Your task to perform on an android device: check google app version Image 0: 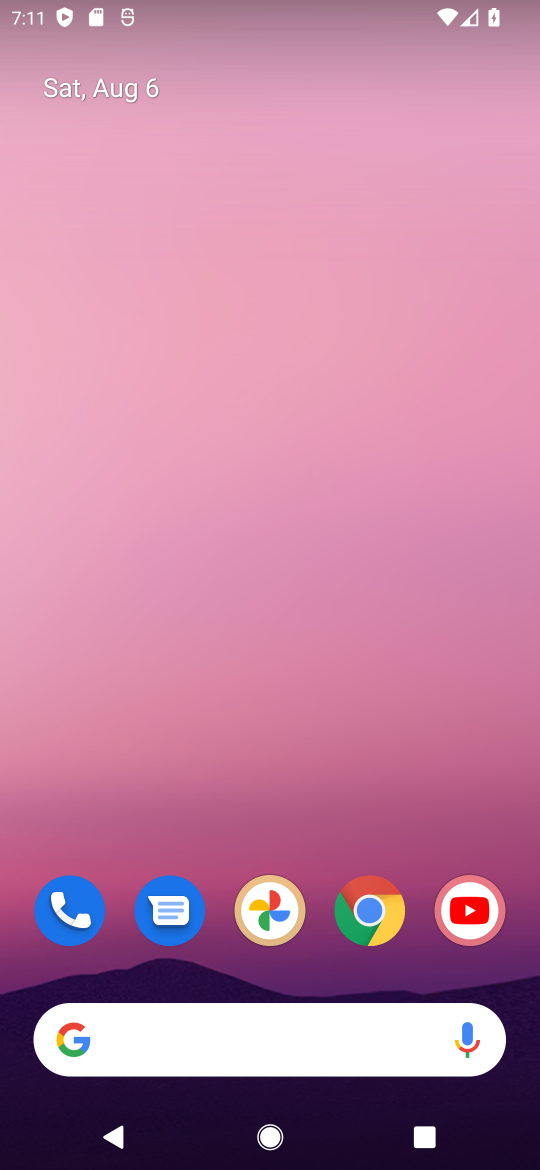
Step 0: drag from (488, 894) to (345, 169)
Your task to perform on an android device: check google app version Image 1: 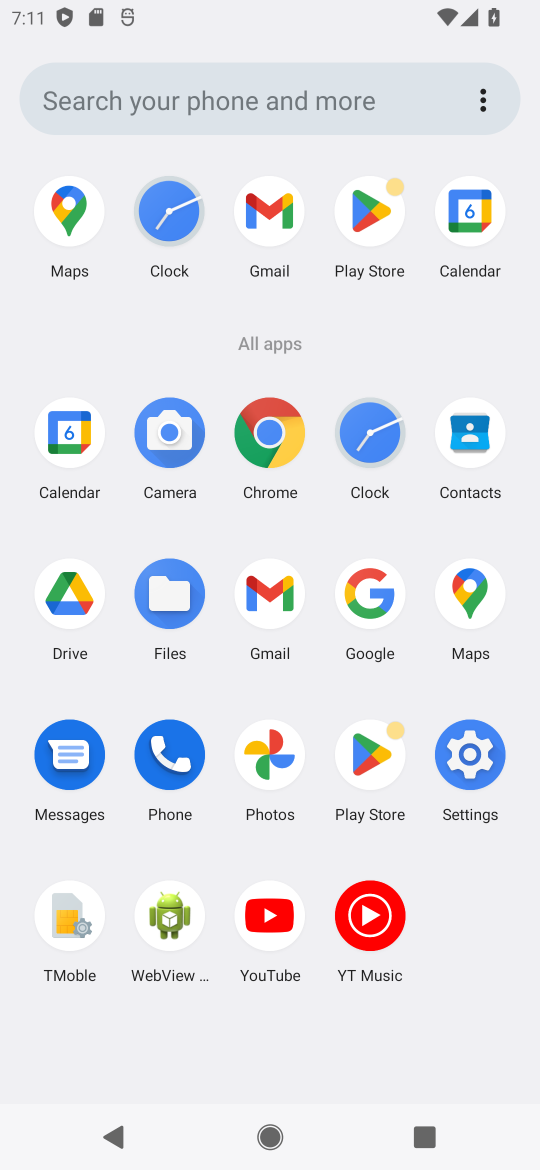
Step 1: click (373, 593)
Your task to perform on an android device: check google app version Image 2: 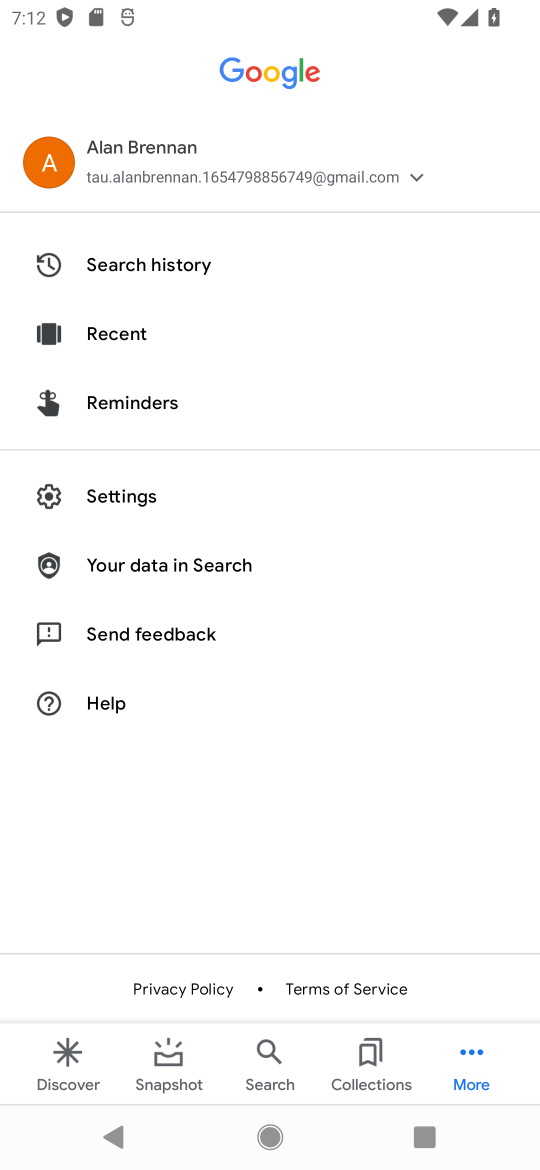
Step 2: click (495, 1062)
Your task to perform on an android device: check google app version Image 3: 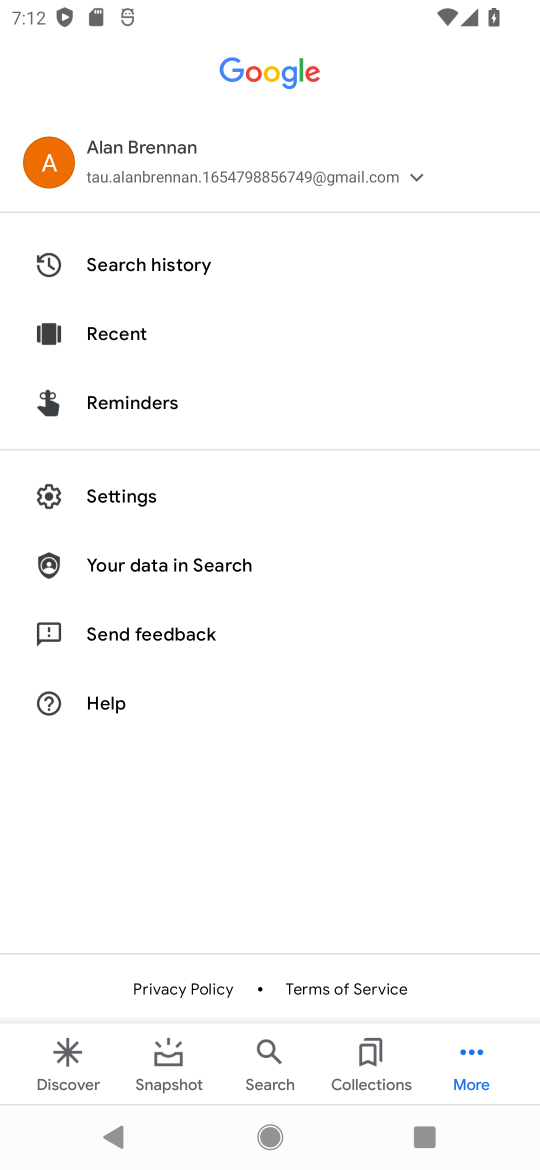
Step 3: click (480, 1069)
Your task to perform on an android device: check google app version Image 4: 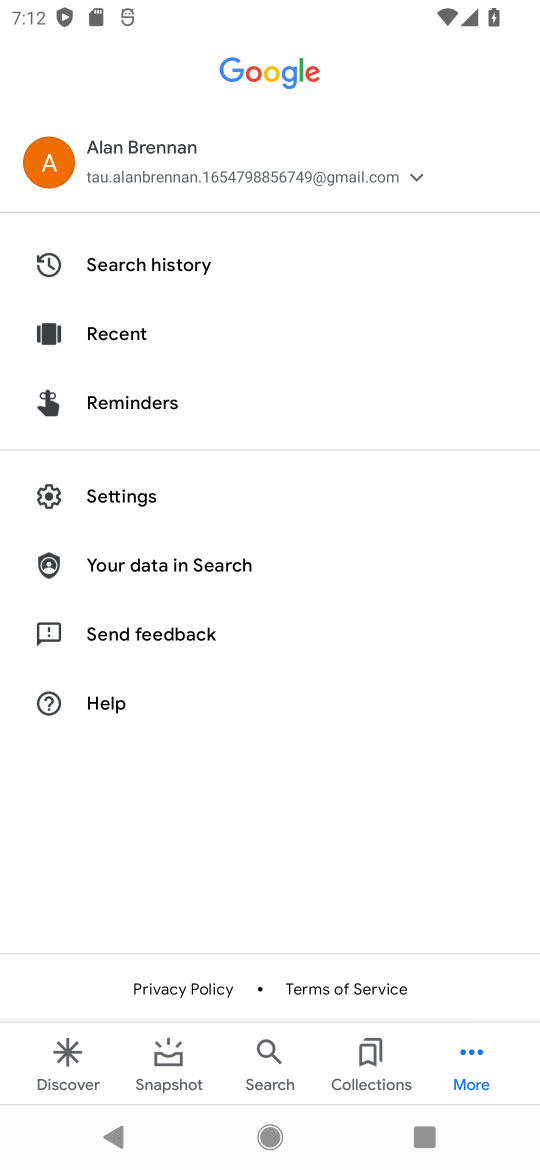
Step 4: click (463, 1072)
Your task to perform on an android device: check google app version Image 5: 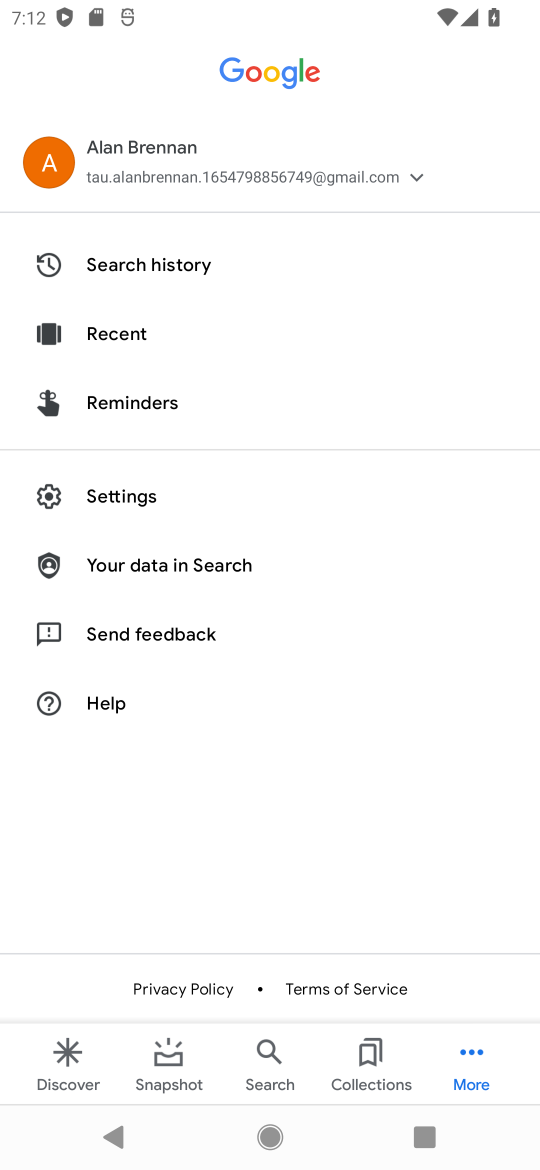
Step 5: click (86, 497)
Your task to perform on an android device: check google app version Image 6: 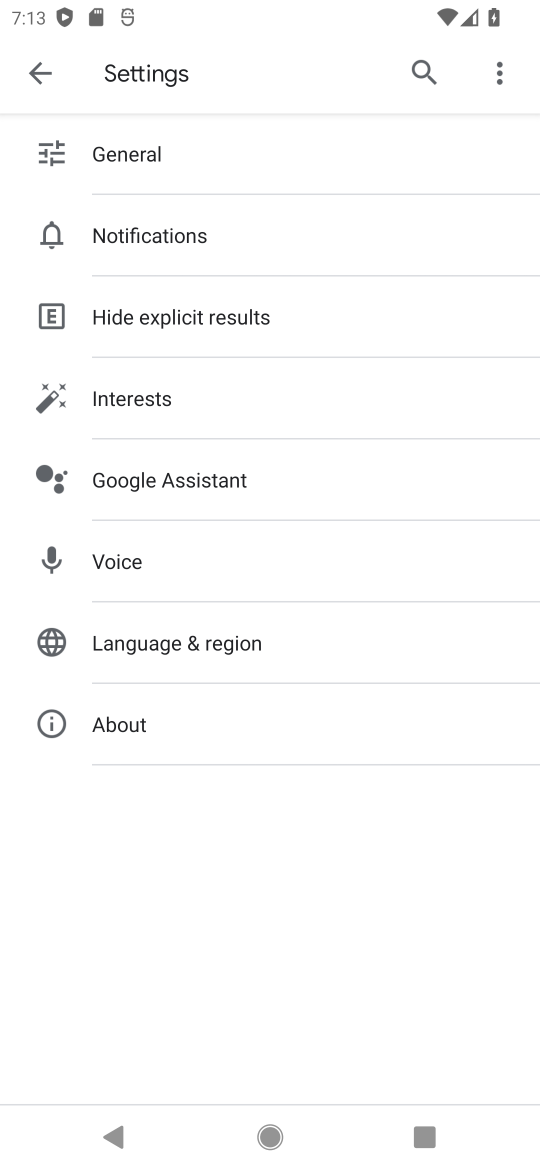
Step 6: click (129, 722)
Your task to perform on an android device: check google app version Image 7: 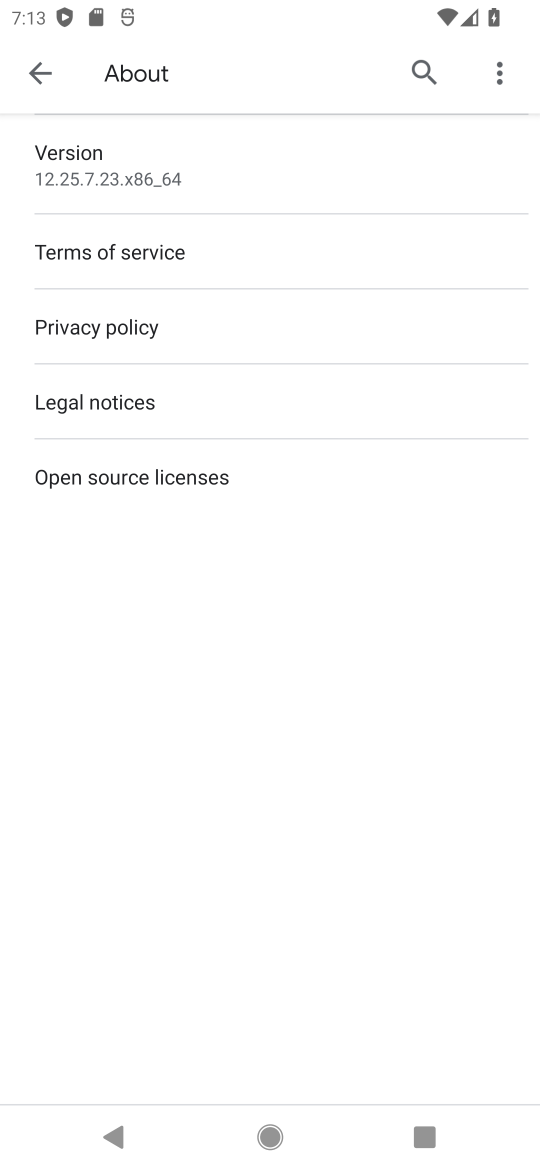
Step 7: click (87, 161)
Your task to perform on an android device: check google app version Image 8: 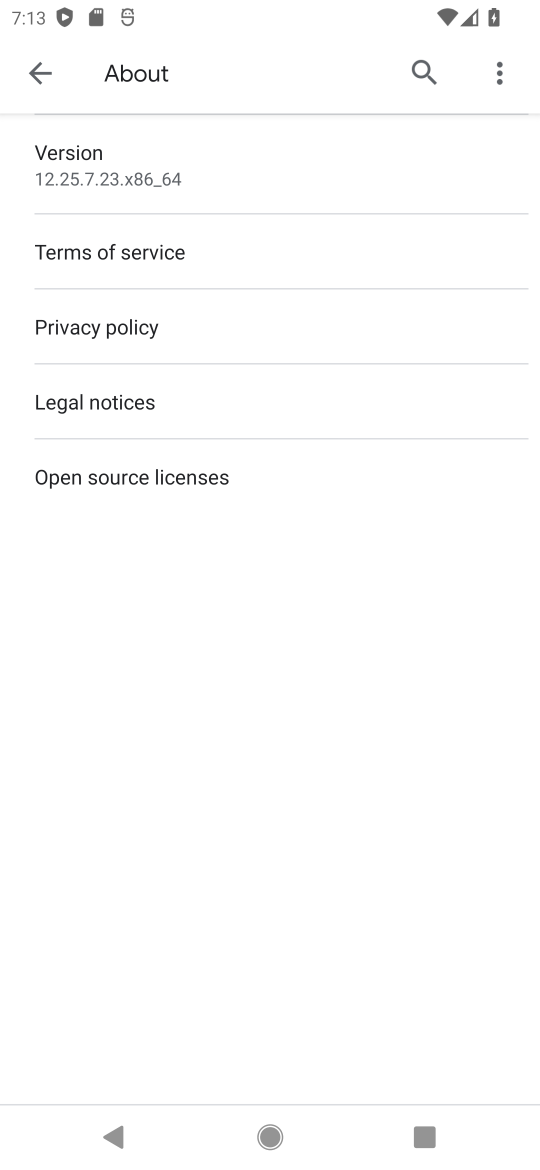
Step 8: task complete